Your task to perform on an android device: allow notifications from all sites in the chrome app Image 0: 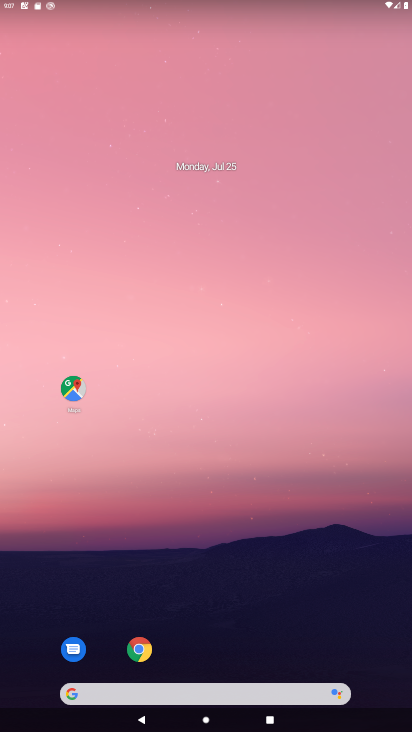
Step 0: drag from (191, 661) to (152, 307)
Your task to perform on an android device: allow notifications from all sites in the chrome app Image 1: 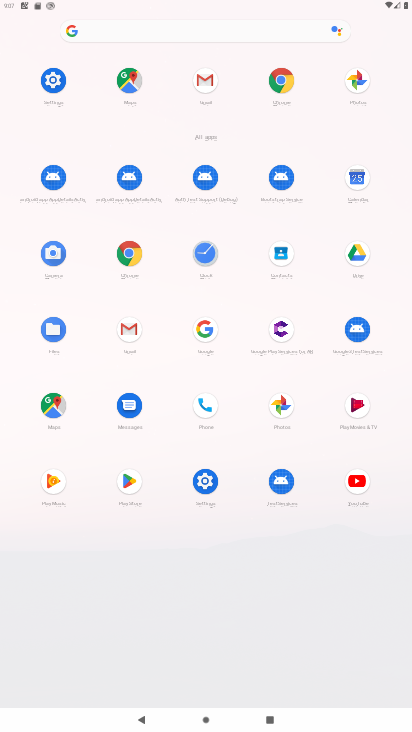
Step 1: click (136, 258)
Your task to perform on an android device: allow notifications from all sites in the chrome app Image 2: 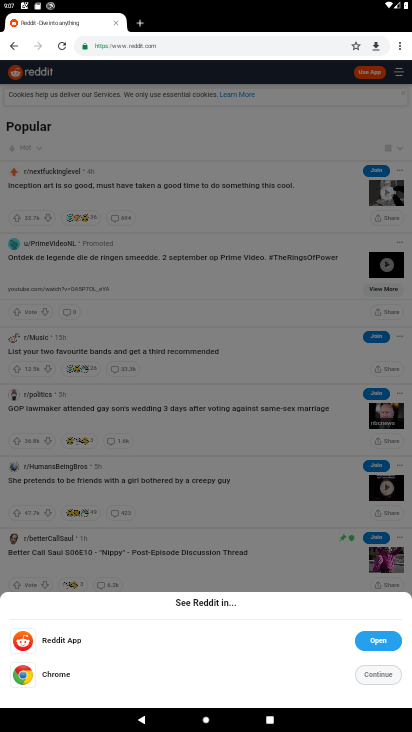
Step 2: click (379, 671)
Your task to perform on an android device: allow notifications from all sites in the chrome app Image 3: 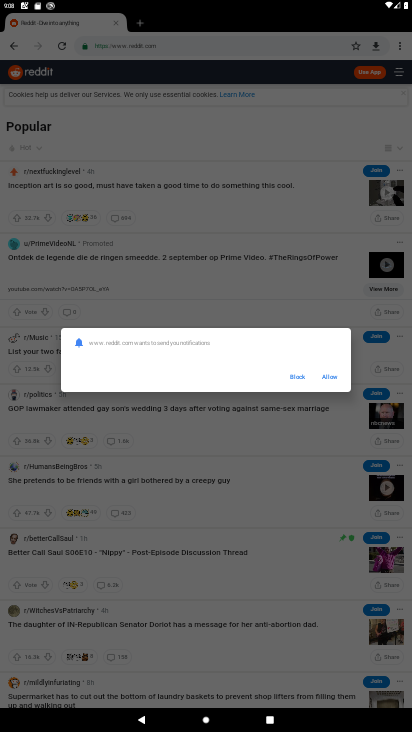
Step 3: click (319, 377)
Your task to perform on an android device: allow notifications from all sites in the chrome app Image 4: 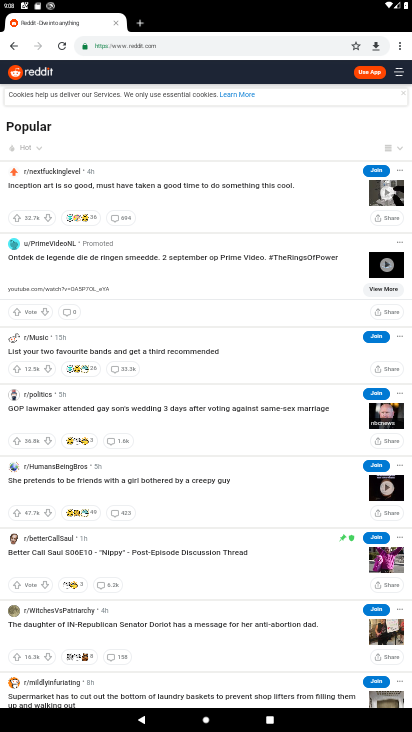
Step 4: click (393, 45)
Your task to perform on an android device: allow notifications from all sites in the chrome app Image 5: 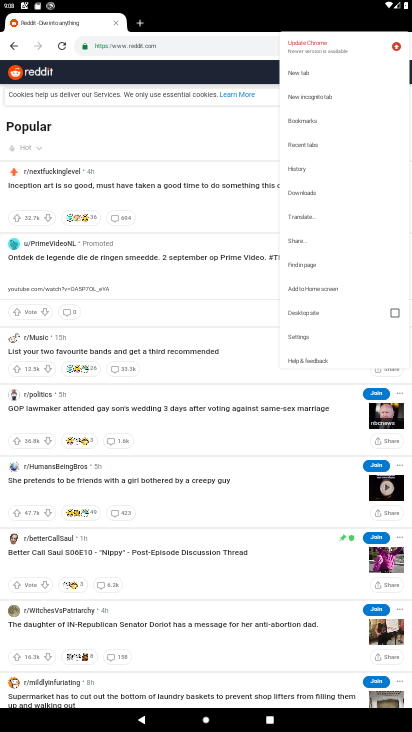
Step 5: click (297, 337)
Your task to perform on an android device: allow notifications from all sites in the chrome app Image 6: 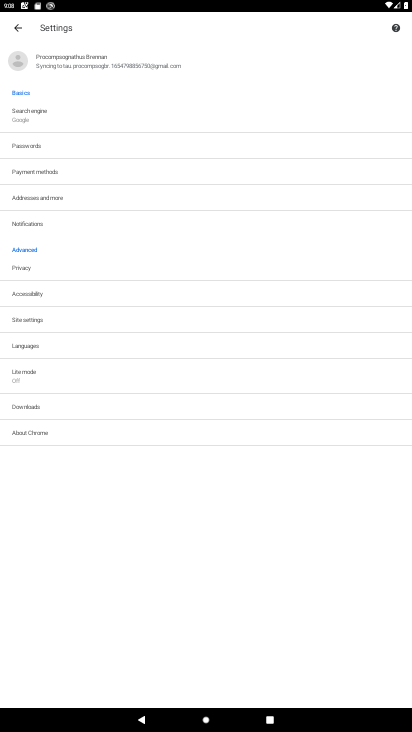
Step 6: click (24, 313)
Your task to perform on an android device: allow notifications from all sites in the chrome app Image 7: 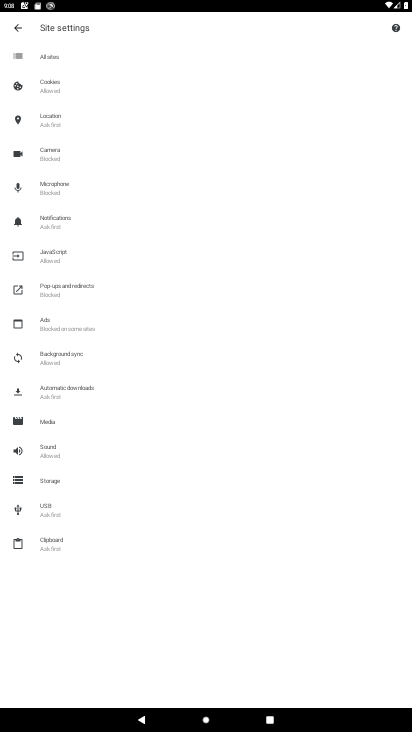
Step 7: click (36, 211)
Your task to perform on an android device: allow notifications from all sites in the chrome app Image 8: 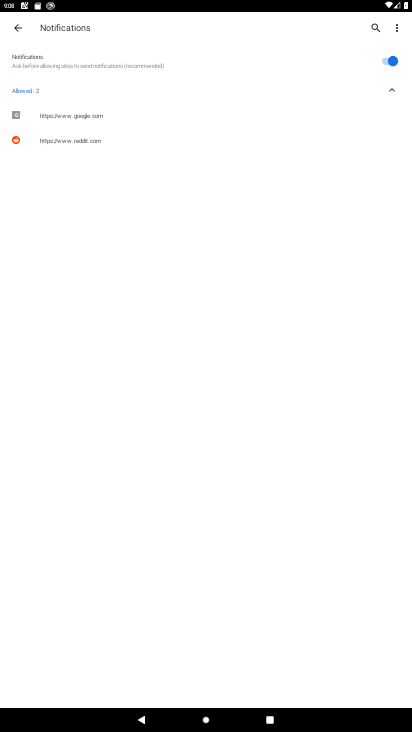
Step 8: task complete